Your task to perform on an android device: turn on bluetooth scan Image 0: 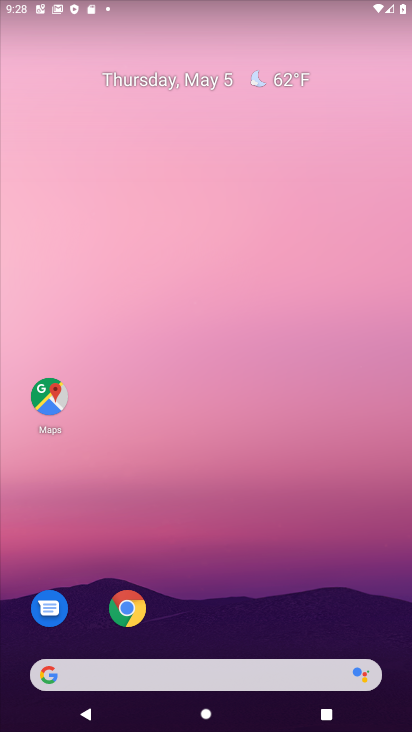
Step 0: drag from (323, 582) to (331, 9)
Your task to perform on an android device: turn on bluetooth scan Image 1: 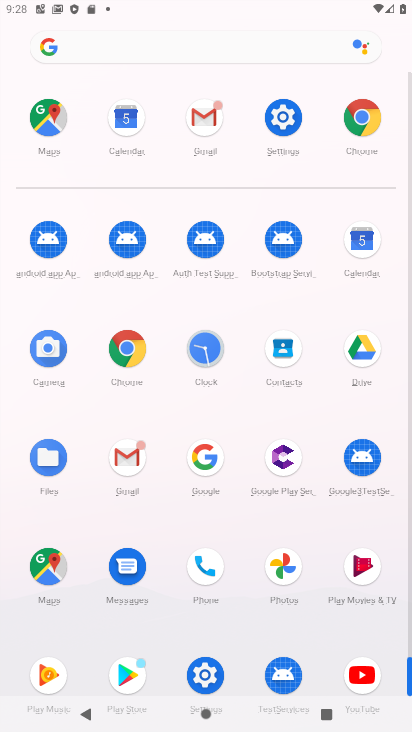
Step 1: drag from (7, 510) to (21, 205)
Your task to perform on an android device: turn on bluetooth scan Image 2: 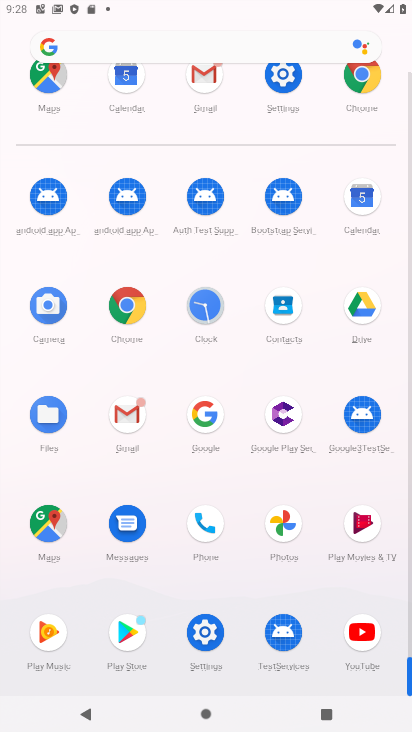
Step 2: click (204, 629)
Your task to perform on an android device: turn on bluetooth scan Image 3: 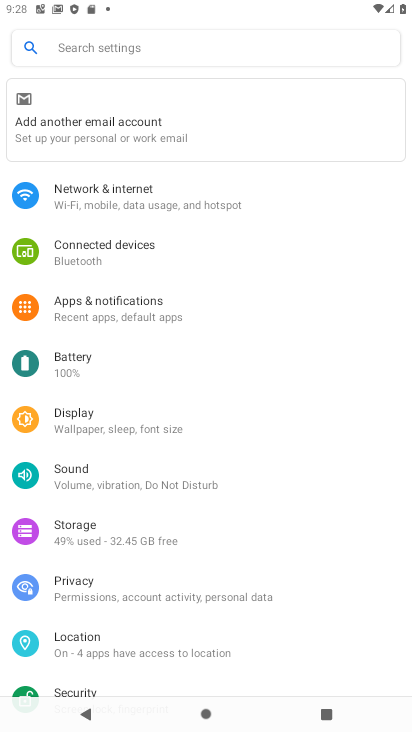
Step 3: drag from (279, 539) to (273, 181)
Your task to perform on an android device: turn on bluetooth scan Image 4: 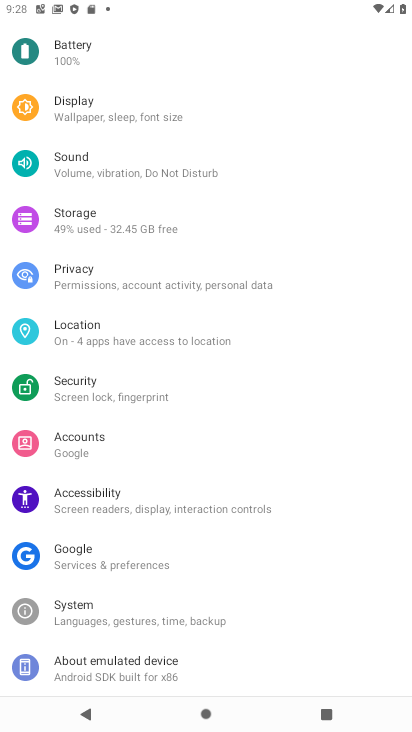
Step 4: click (129, 333)
Your task to perform on an android device: turn on bluetooth scan Image 5: 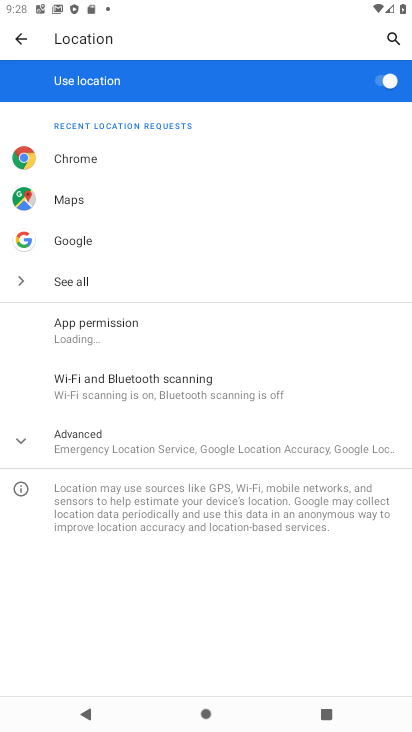
Step 5: click (42, 439)
Your task to perform on an android device: turn on bluetooth scan Image 6: 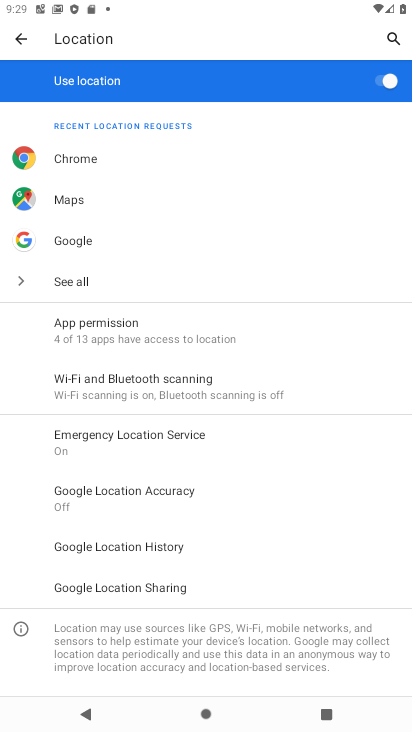
Step 6: click (195, 389)
Your task to perform on an android device: turn on bluetooth scan Image 7: 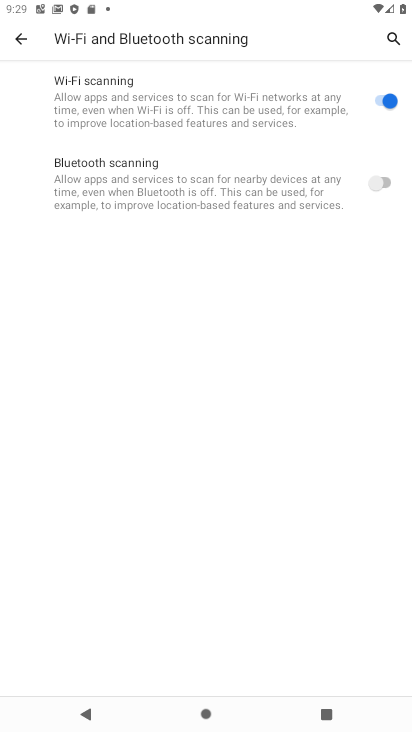
Step 7: click (381, 179)
Your task to perform on an android device: turn on bluetooth scan Image 8: 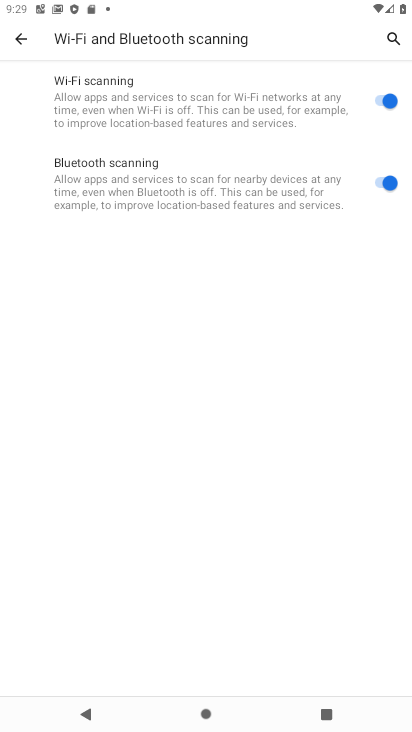
Step 8: task complete